Your task to perform on an android device: What's the weather? Image 0: 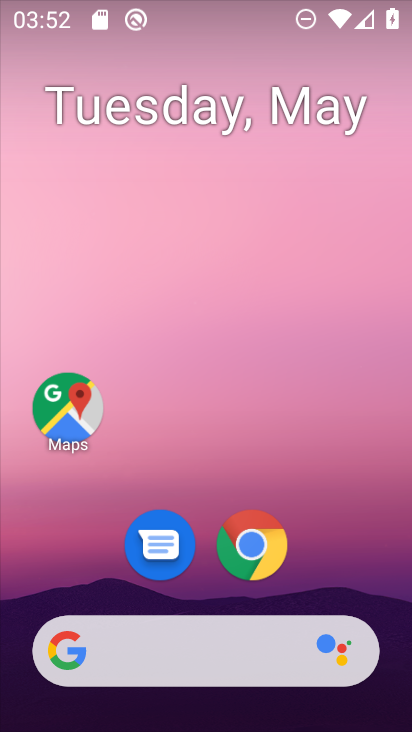
Step 0: click (177, 645)
Your task to perform on an android device: What's the weather? Image 1: 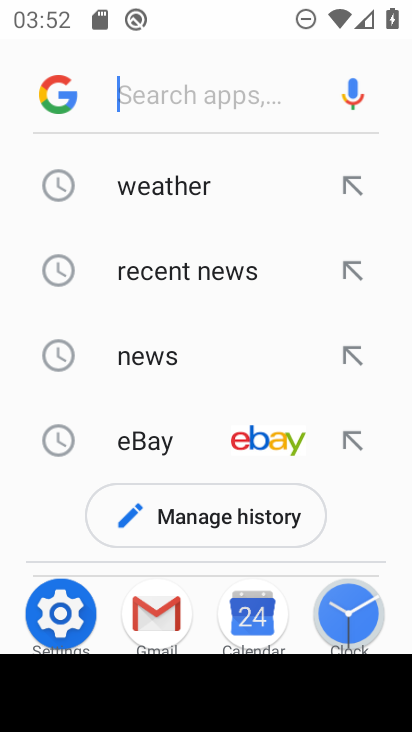
Step 1: click (174, 194)
Your task to perform on an android device: What's the weather? Image 2: 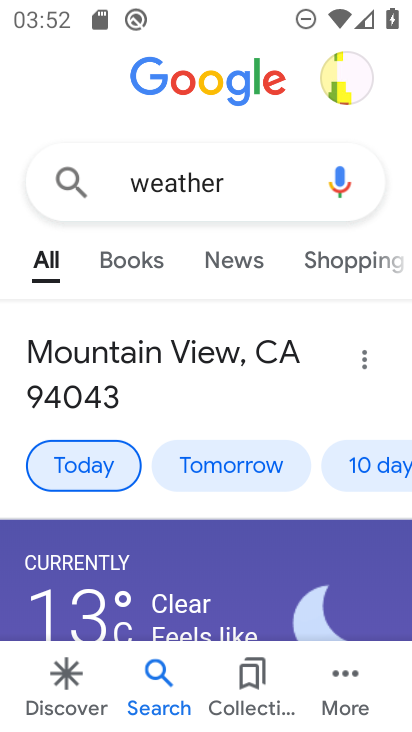
Step 2: task complete